Your task to perform on an android device: toggle sleep mode Image 0: 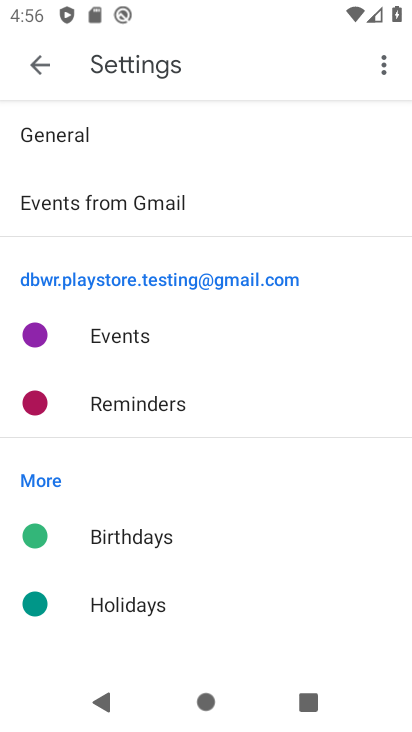
Step 0: press home button
Your task to perform on an android device: toggle sleep mode Image 1: 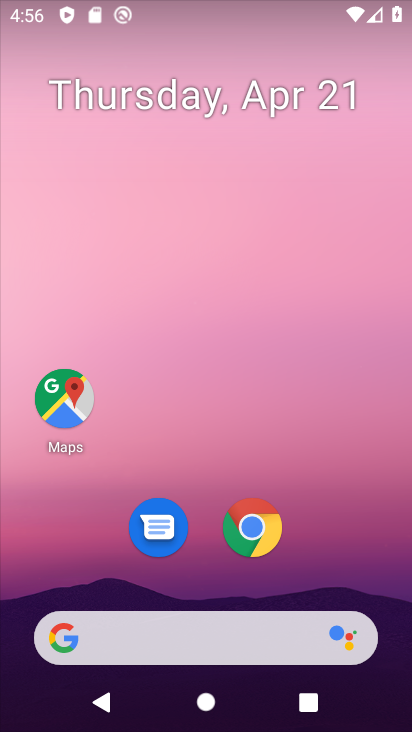
Step 1: drag from (393, 608) to (354, 86)
Your task to perform on an android device: toggle sleep mode Image 2: 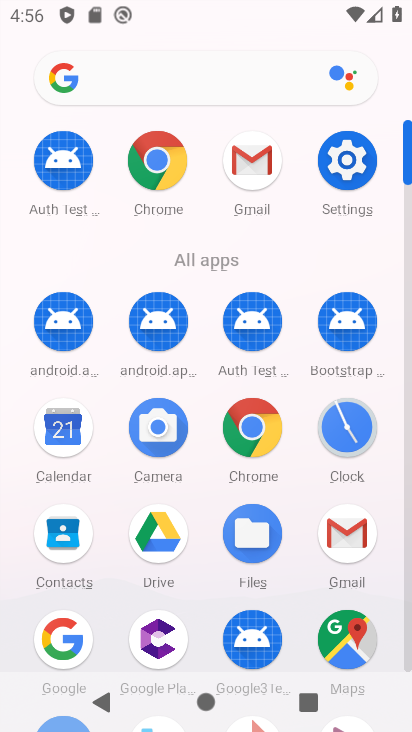
Step 2: click (335, 163)
Your task to perform on an android device: toggle sleep mode Image 3: 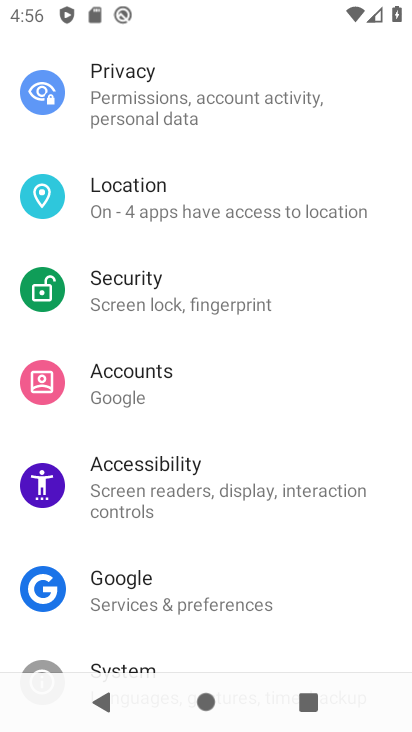
Step 3: drag from (339, 105) to (349, 617)
Your task to perform on an android device: toggle sleep mode Image 4: 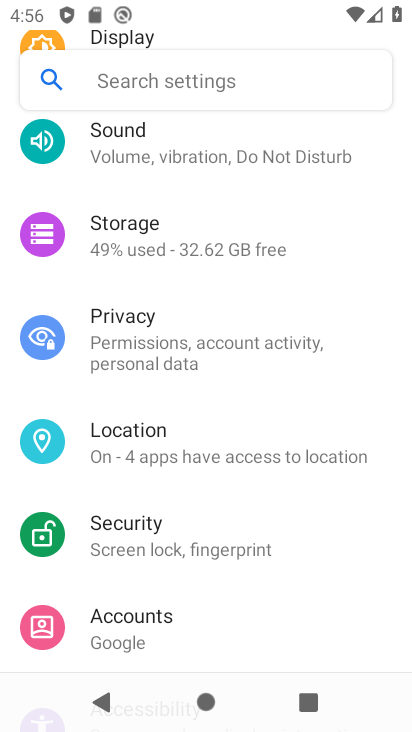
Step 4: drag from (358, 523) to (357, 618)
Your task to perform on an android device: toggle sleep mode Image 5: 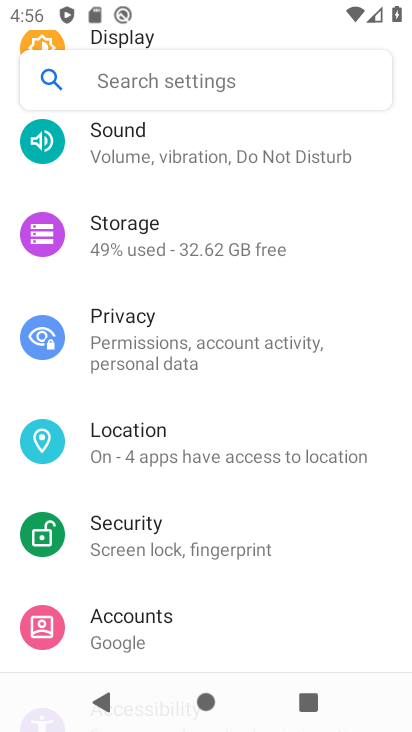
Step 5: click (117, 36)
Your task to perform on an android device: toggle sleep mode Image 6: 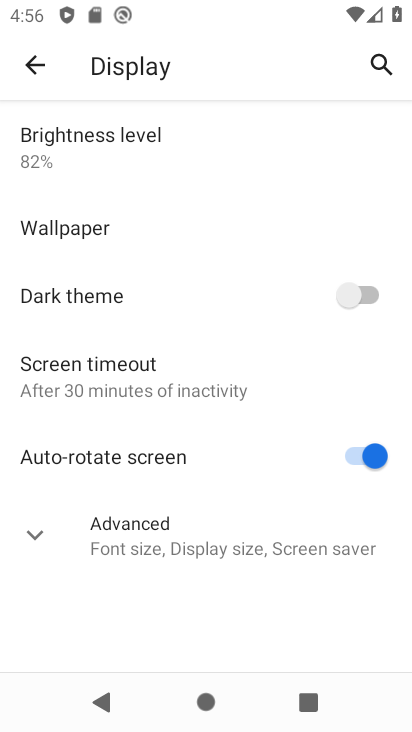
Step 6: click (78, 376)
Your task to perform on an android device: toggle sleep mode Image 7: 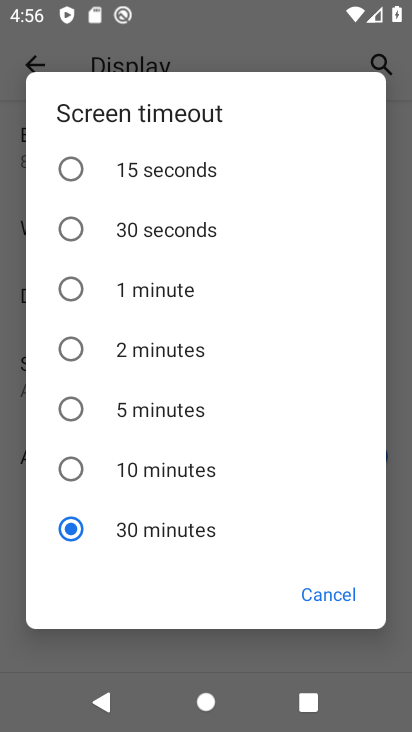
Step 7: click (69, 469)
Your task to perform on an android device: toggle sleep mode Image 8: 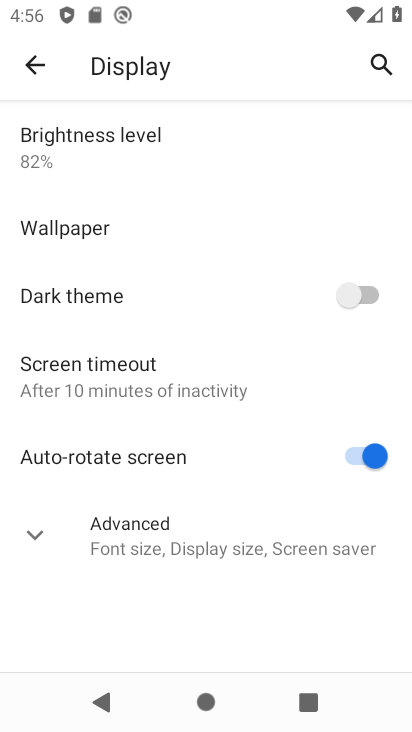
Step 8: task complete